Your task to perform on an android device: change the clock display to analog Image 0: 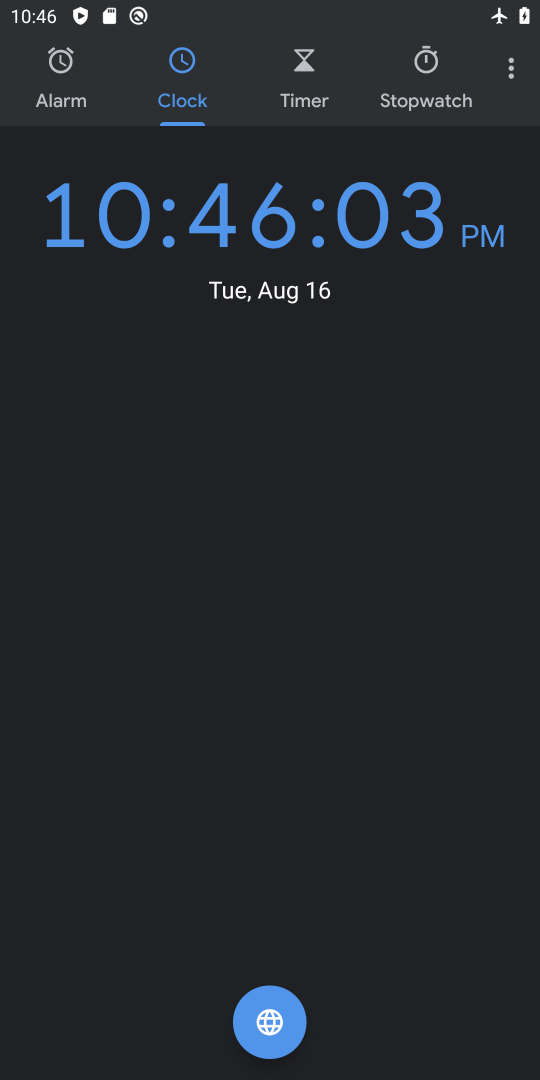
Step 0: press home button
Your task to perform on an android device: change the clock display to analog Image 1: 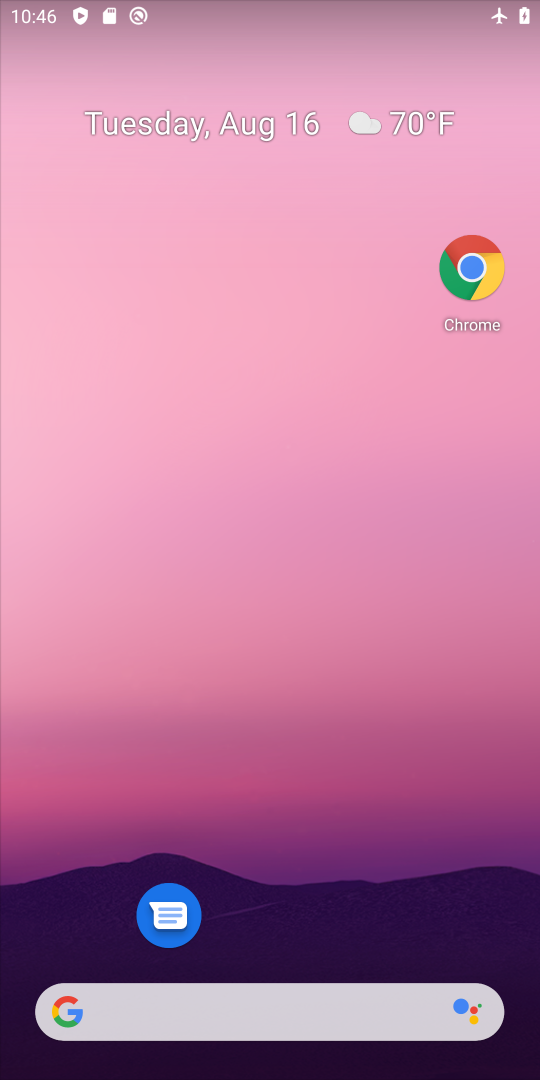
Step 1: drag from (222, 959) to (190, 138)
Your task to perform on an android device: change the clock display to analog Image 2: 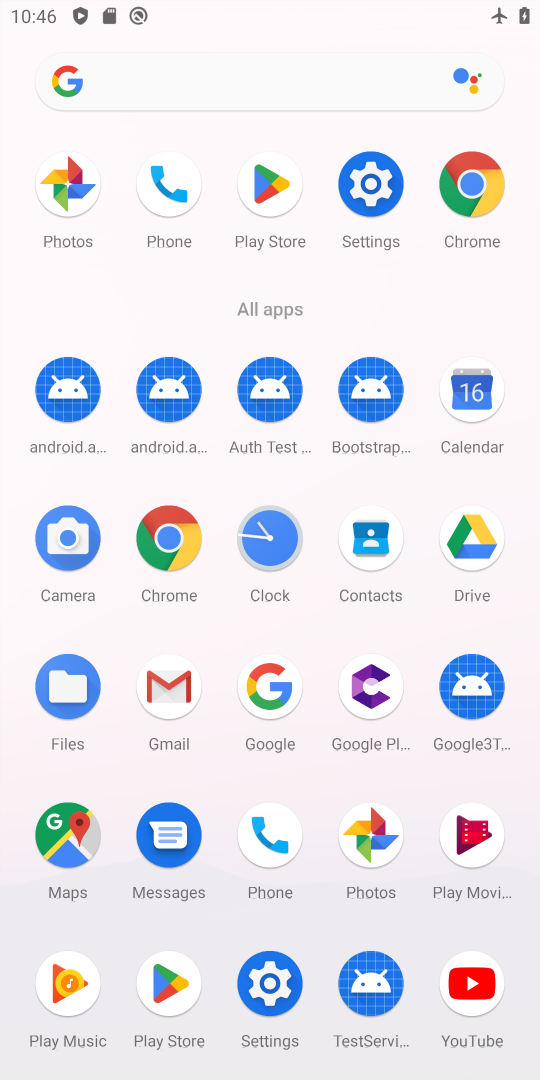
Step 2: click (277, 561)
Your task to perform on an android device: change the clock display to analog Image 3: 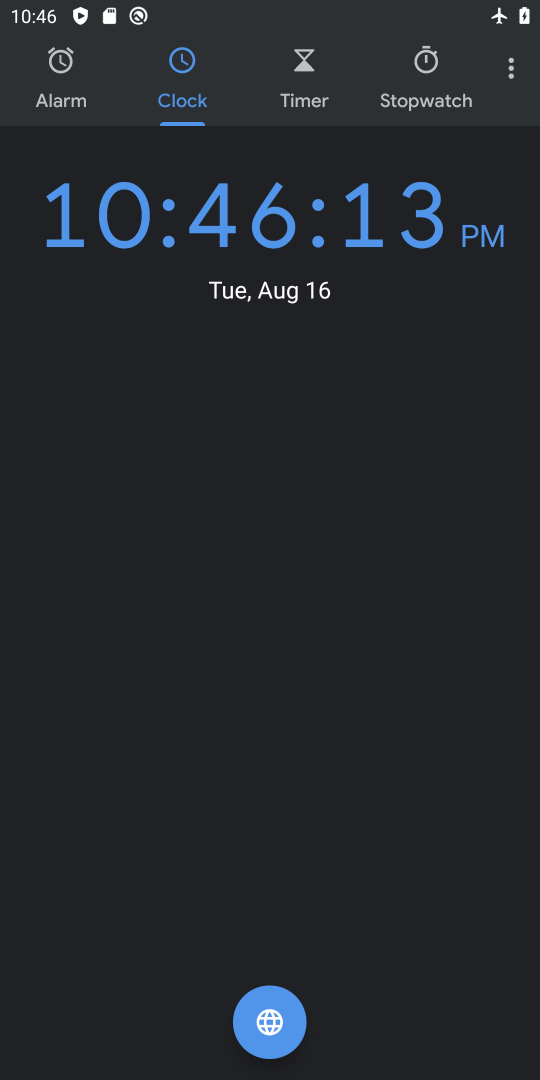
Step 3: click (500, 74)
Your task to perform on an android device: change the clock display to analog Image 4: 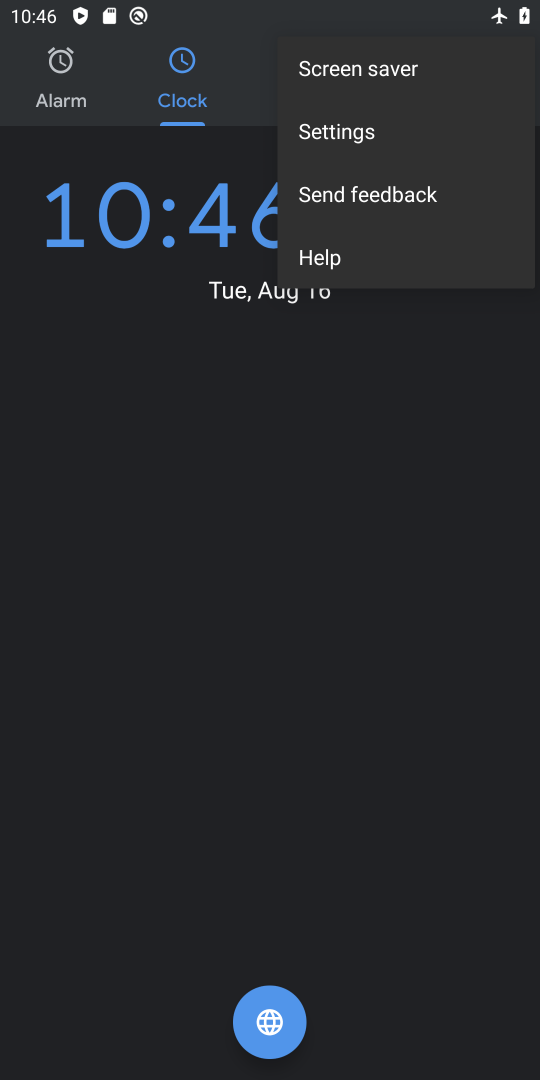
Step 4: click (342, 129)
Your task to perform on an android device: change the clock display to analog Image 5: 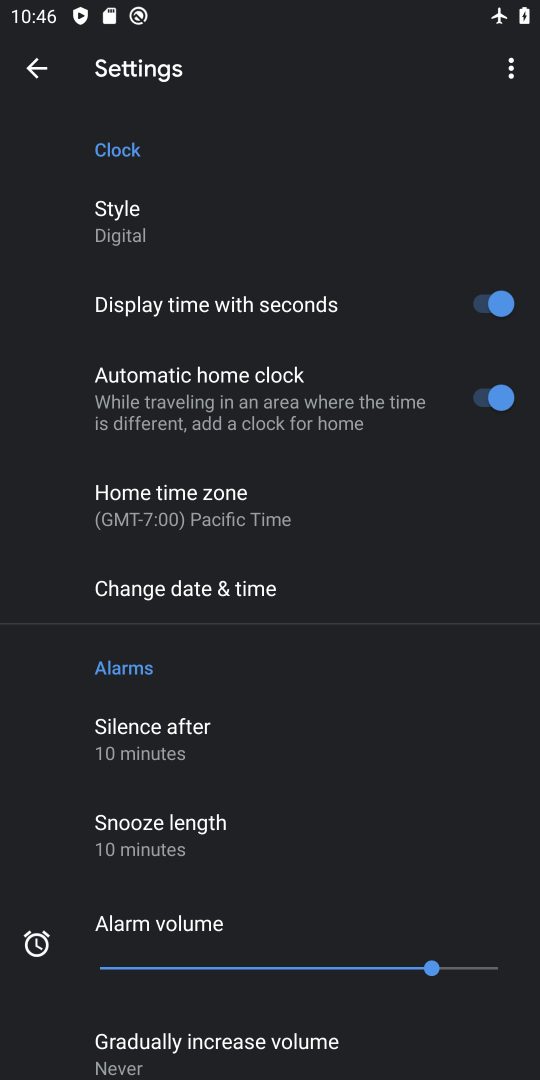
Step 5: click (114, 203)
Your task to perform on an android device: change the clock display to analog Image 6: 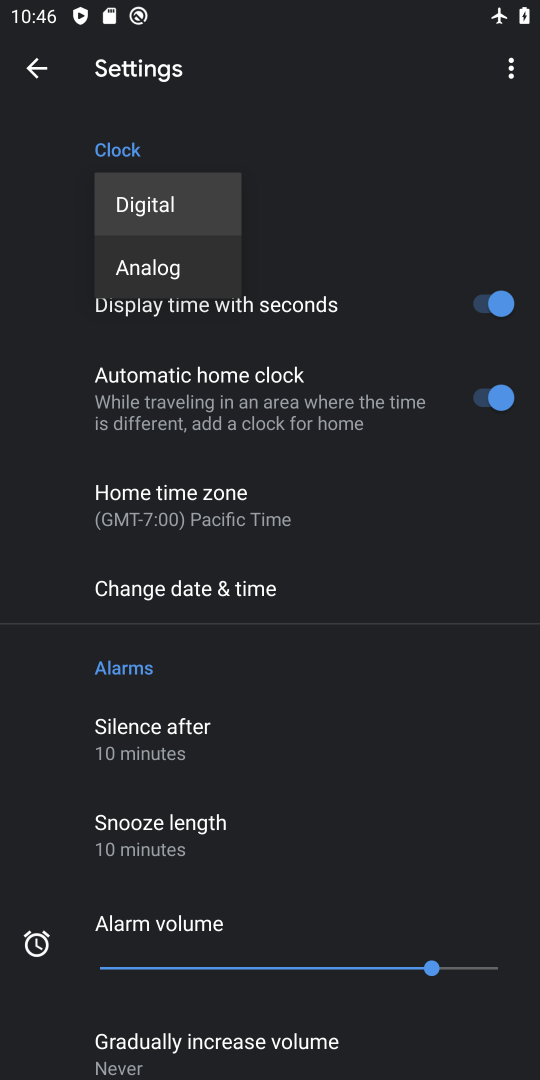
Step 6: click (135, 255)
Your task to perform on an android device: change the clock display to analog Image 7: 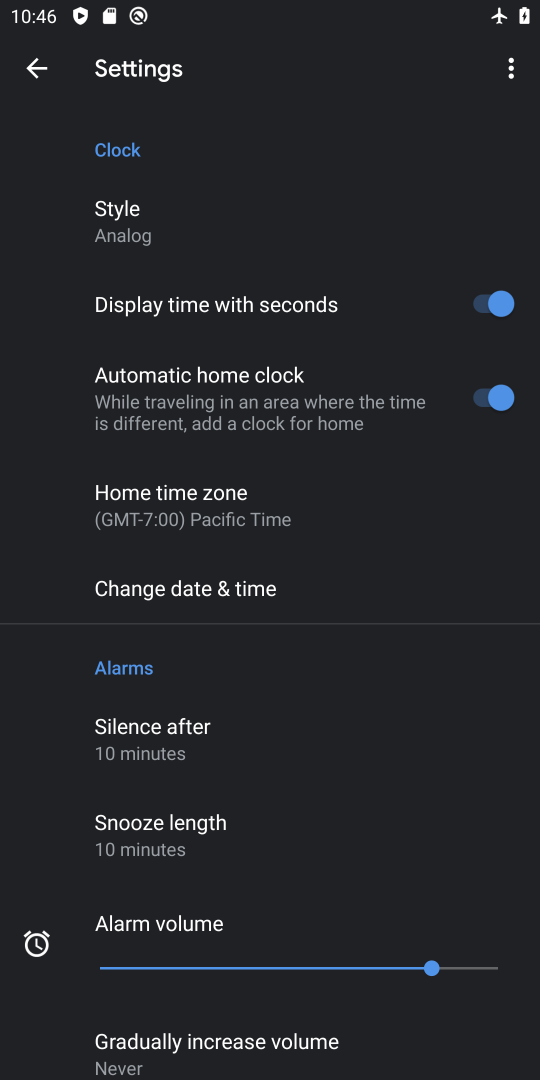
Step 7: task complete